Your task to perform on an android device: Search for seafood restaurants on Google Maps Image 0: 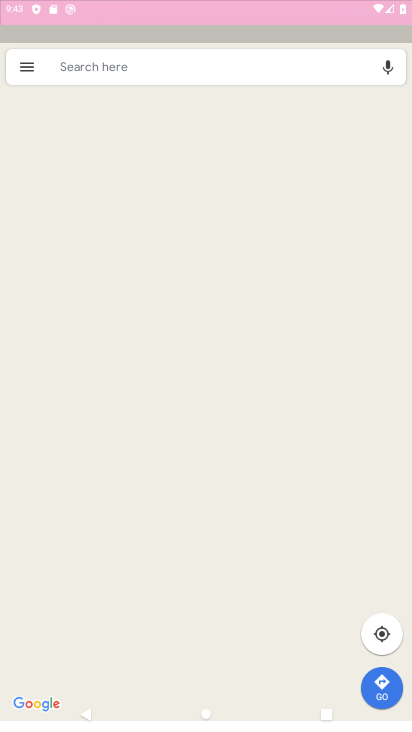
Step 0: drag from (208, 265) to (243, 92)
Your task to perform on an android device: Search for seafood restaurants on Google Maps Image 1: 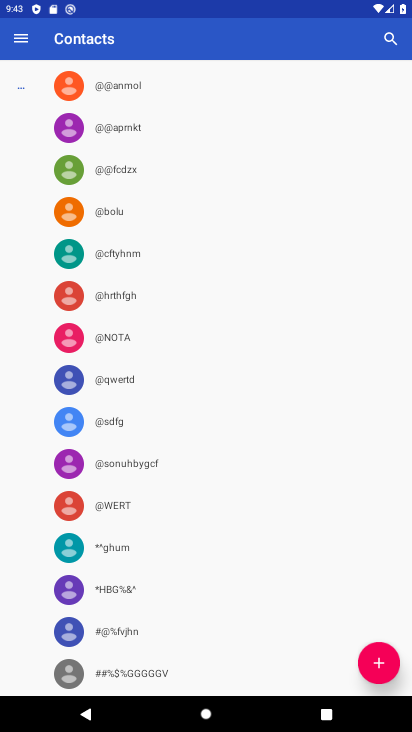
Step 1: press home button
Your task to perform on an android device: Search for seafood restaurants on Google Maps Image 2: 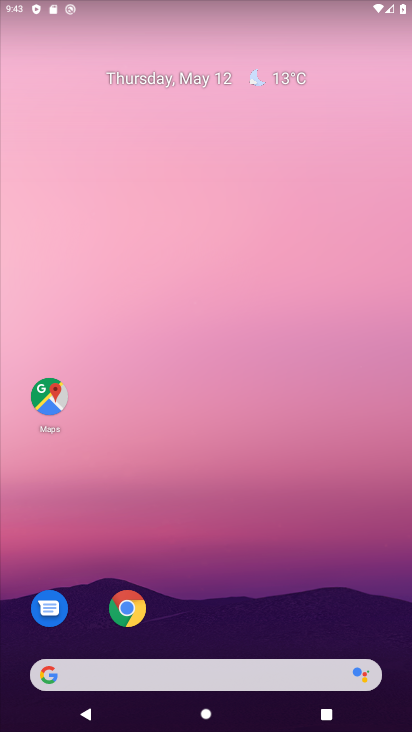
Step 2: click (50, 400)
Your task to perform on an android device: Search for seafood restaurants on Google Maps Image 3: 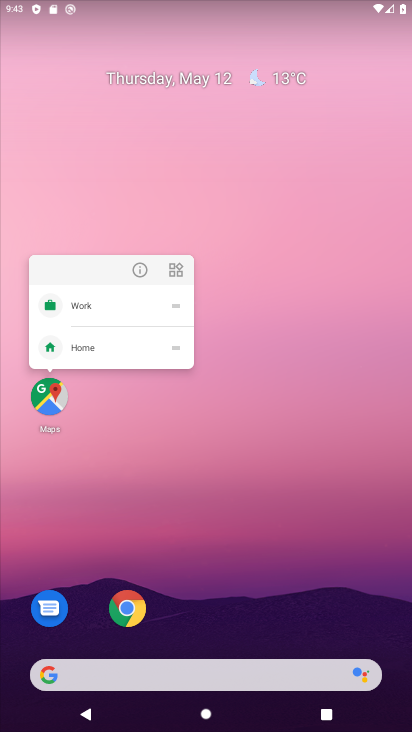
Step 3: click (50, 400)
Your task to perform on an android device: Search for seafood restaurants on Google Maps Image 4: 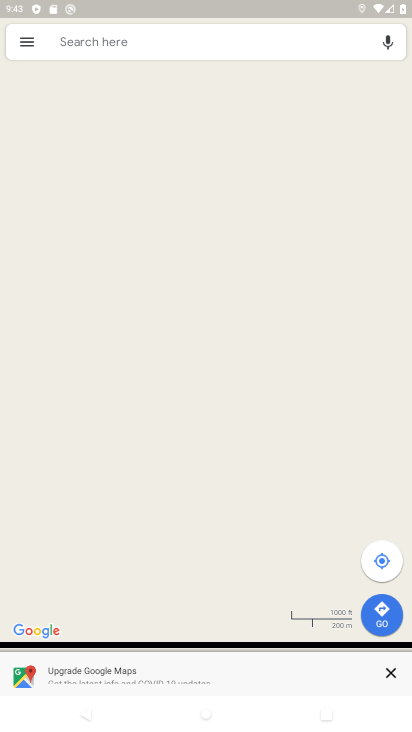
Step 4: click (204, 29)
Your task to perform on an android device: Search for seafood restaurants on Google Maps Image 5: 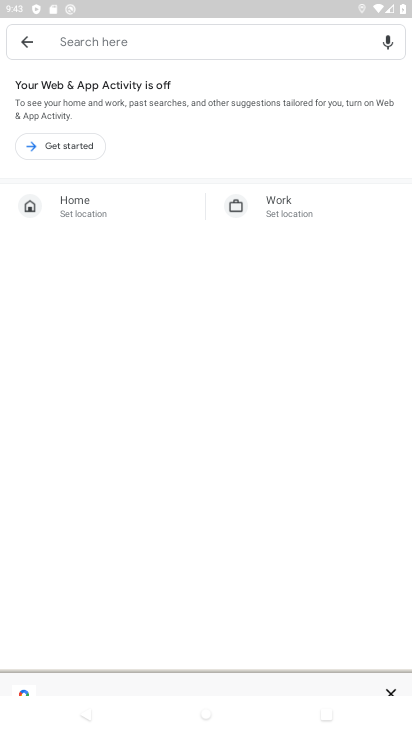
Step 5: click (42, 145)
Your task to perform on an android device: Search for seafood restaurants on Google Maps Image 6: 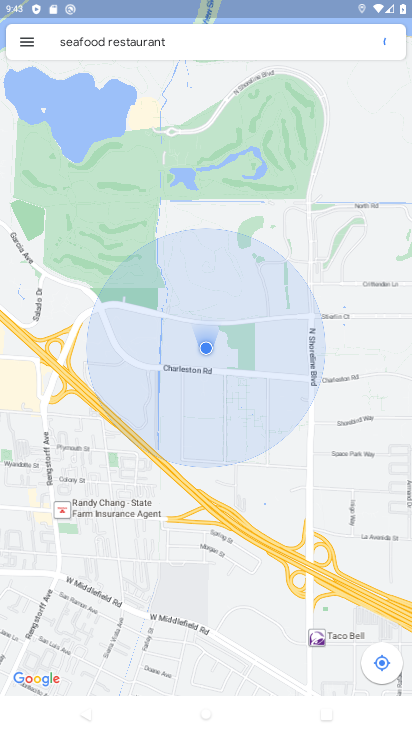
Step 6: task complete